Your task to perform on an android device: Go to Android settings Image 0: 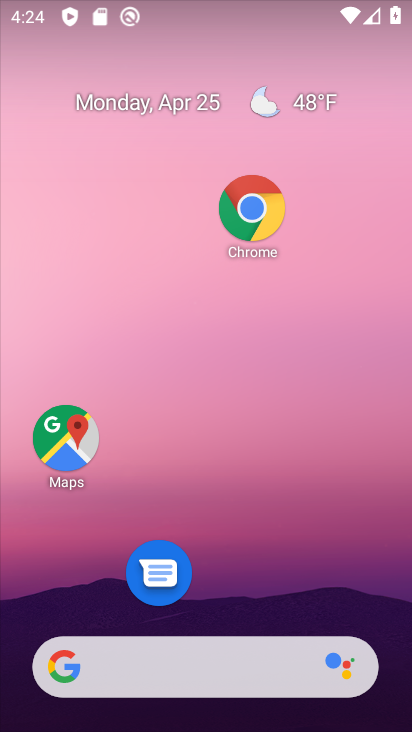
Step 0: drag from (252, 600) to (249, 91)
Your task to perform on an android device: Go to Android settings Image 1: 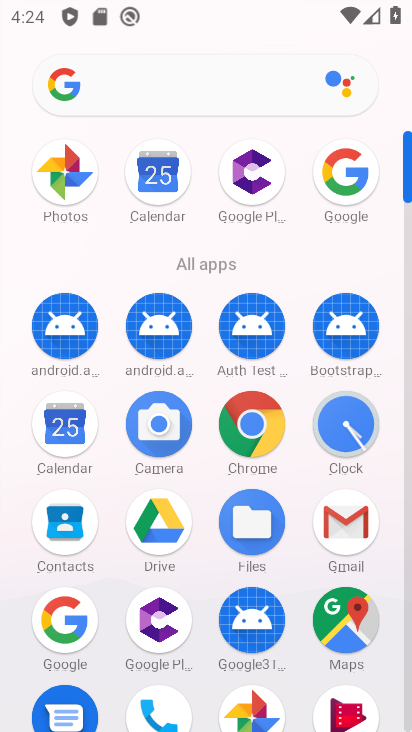
Step 1: drag from (108, 590) to (96, 272)
Your task to perform on an android device: Go to Android settings Image 2: 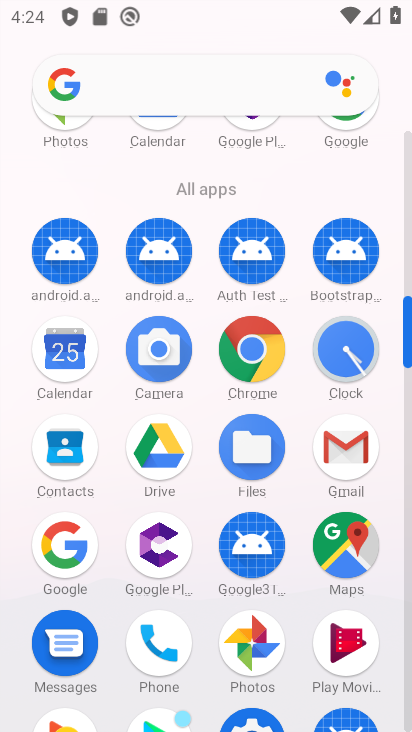
Step 2: drag from (100, 574) to (121, 333)
Your task to perform on an android device: Go to Android settings Image 3: 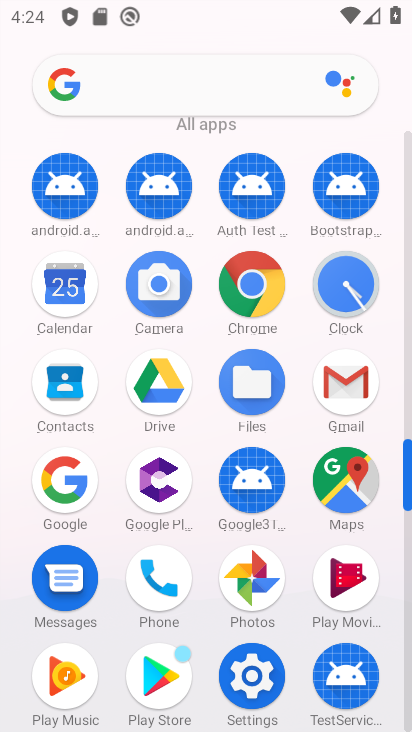
Step 3: click (244, 663)
Your task to perform on an android device: Go to Android settings Image 4: 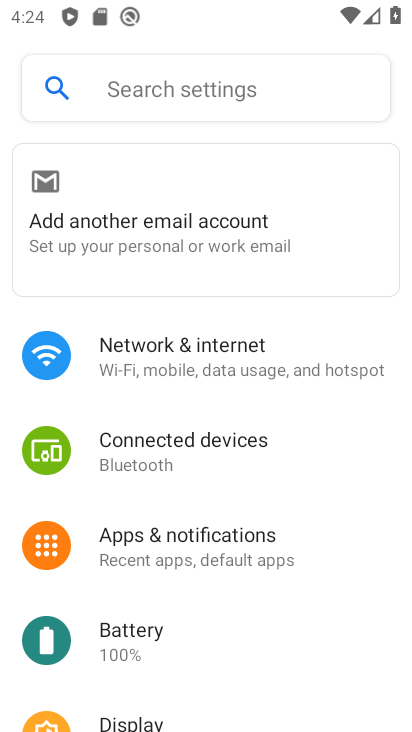
Step 4: task complete